Your task to perform on an android device: turn on notifications settings in the gmail app Image 0: 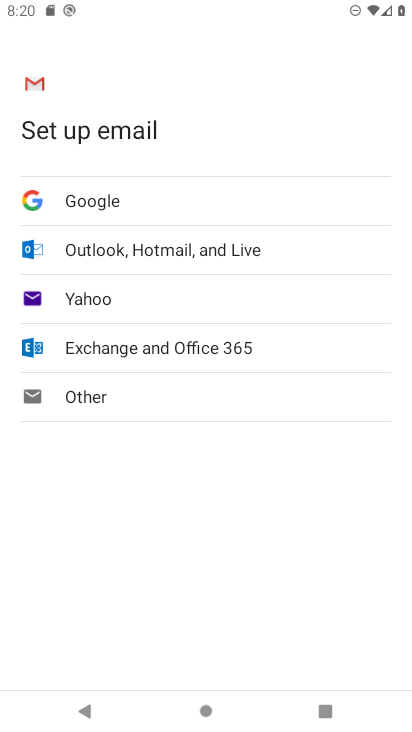
Step 0: press home button
Your task to perform on an android device: turn on notifications settings in the gmail app Image 1: 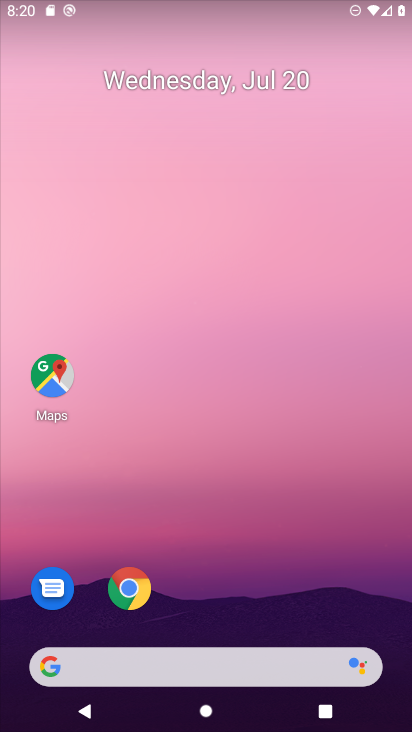
Step 1: drag from (23, 706) to (361, 7)
Your task to perform on an android device: turn on notifications settings in the gmail app Image 2: 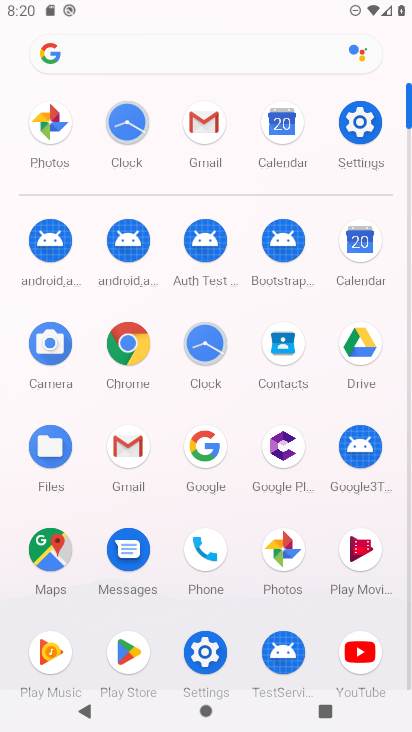
Step 2: click (196, 122)
Your task to perform on an android device: turn on notifications settings in the gmail app Image 3: 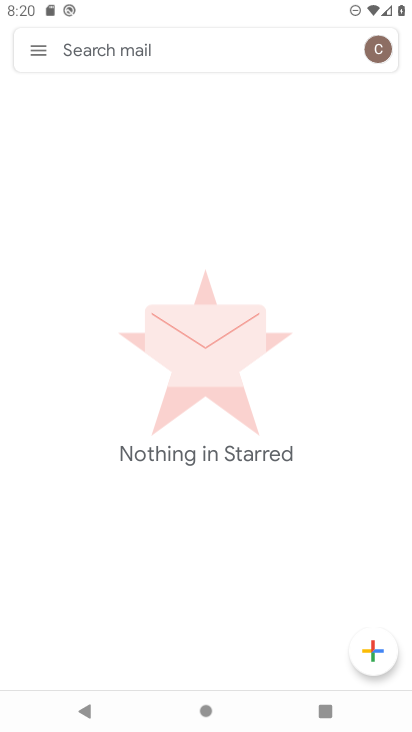
Step 3: click (36, 41)
Your task to perform on an android device: turn on notifications settings in the gmail app Image 4: 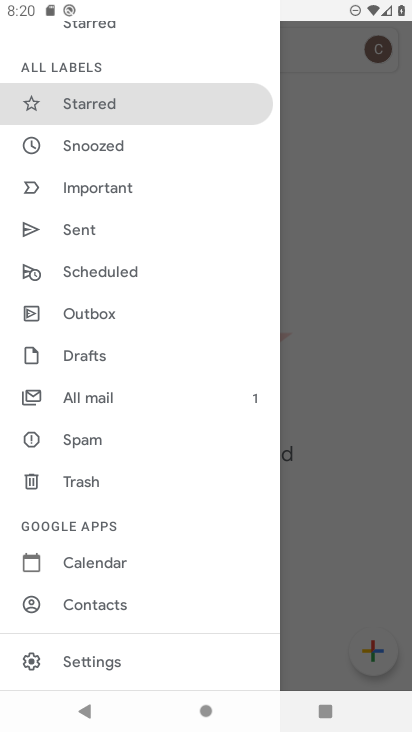
Step 4: click (90, 656)
Your task to perform on an android device: turn on notifications settings in the gmail app Image 5: 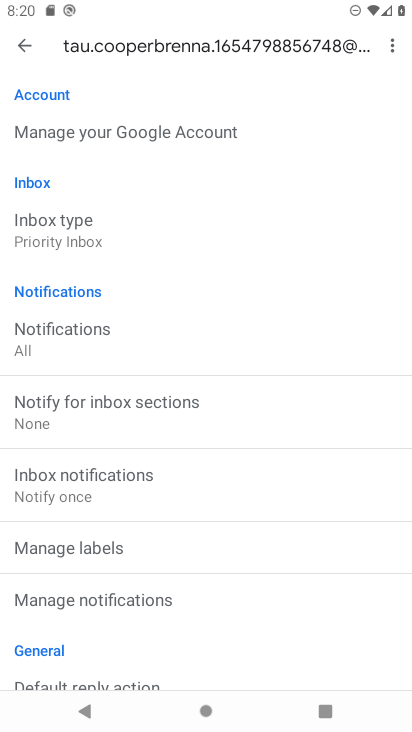
Step 5: click (27, 52)
Your task to perform on an android device: turn on notifications settings in the gmail app Image 6: 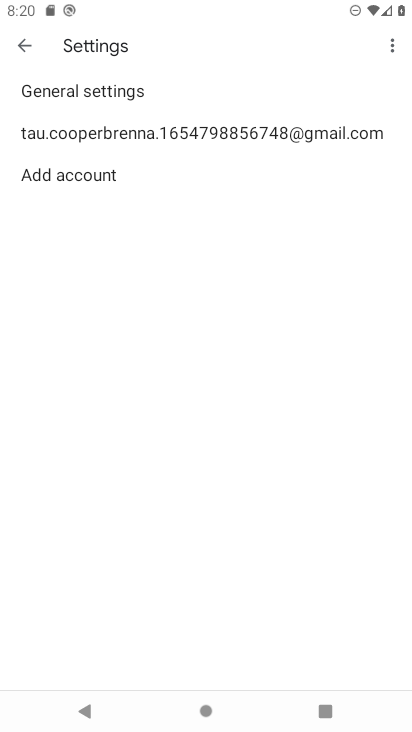
Step 6: click (56, 90)
Your task to perform on an android device: turn on notifications settings in the gmail app Image 7: 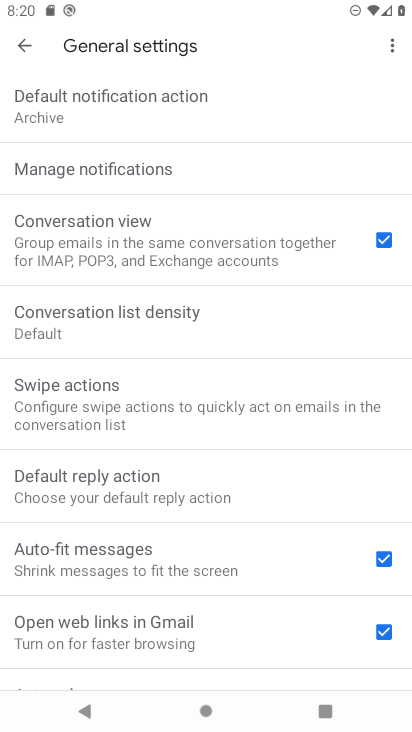
Step 7: click (60, 171)
Your task to perform on an android device: turn on notifications settings in the gmail app Image 8: 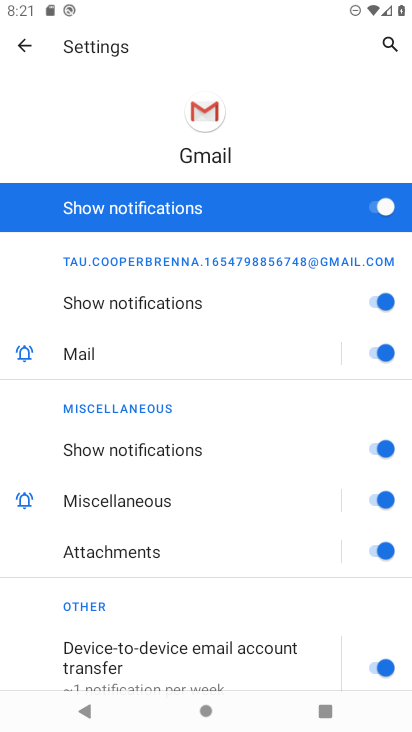
Step 8: task complete